Your task to perform on an android device: Search for sushi restaurants on Maps Image 0: 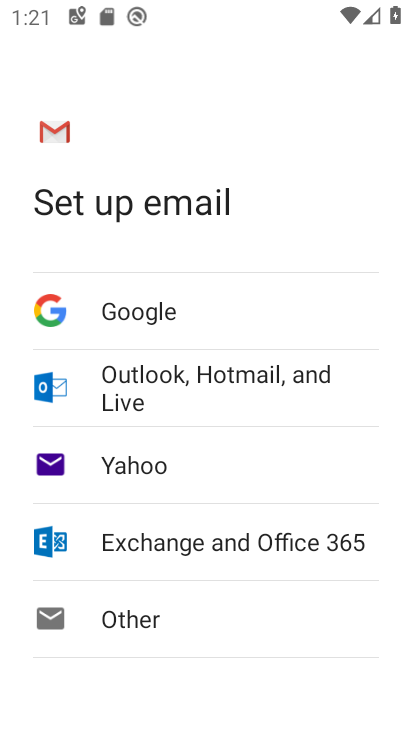
Step 0: press home button
Your task to perform on an android device: Search for sushi restaurants on Maps Image 1: 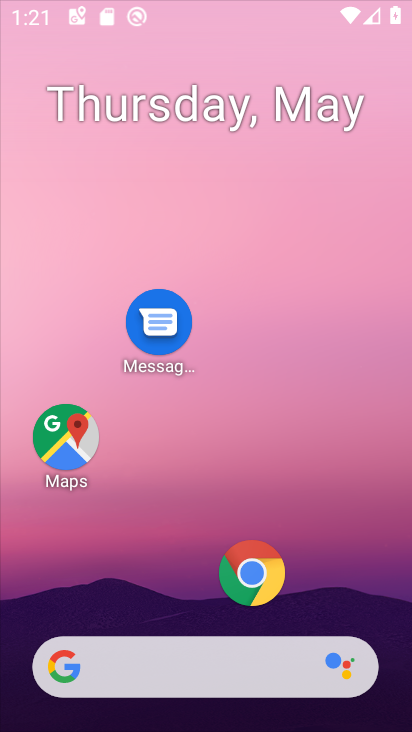
Step 1: drag from (168, 645) to (194, 259)
Your task to perform on an android device: Search for sushi restaurants on Maps Image 2: 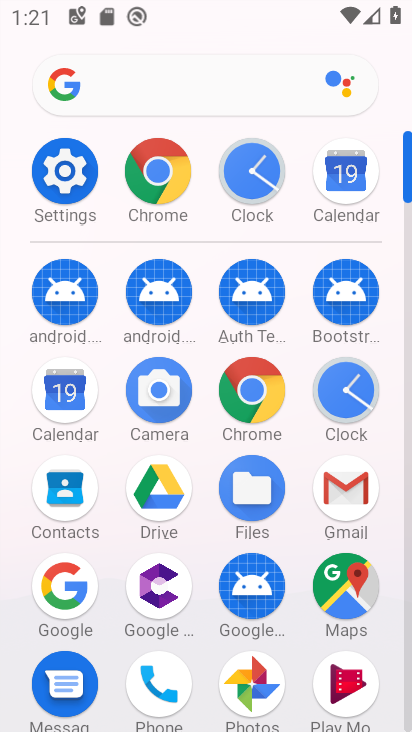
Step 2: click (352, 564)
Your task to perform on an android device: Search for sushi restaurants on Maps Image 3: 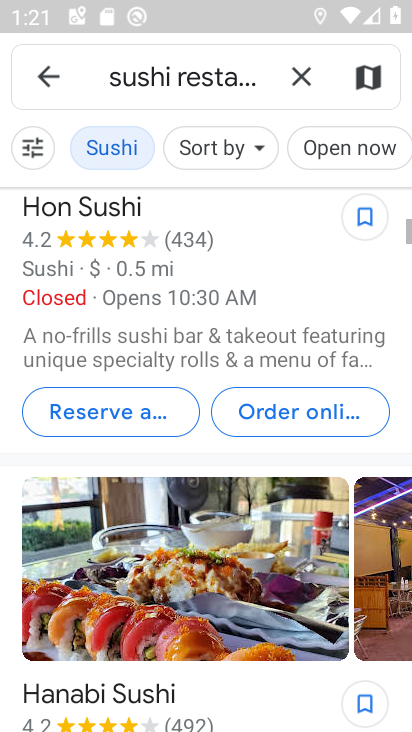
Step 3: task complete